Your task to perform on an android device: allow notifications from all sites in the chrome app Image 0: 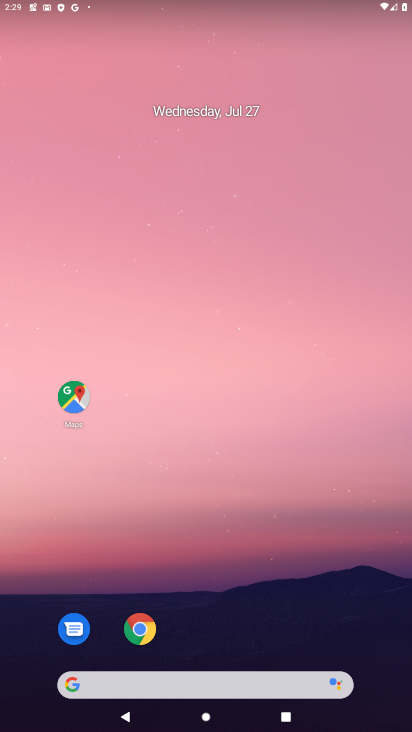
Step 0: click (134, 620)
Your task to perform on an android device: allow notifications from all sites in the chrome app Image 1: 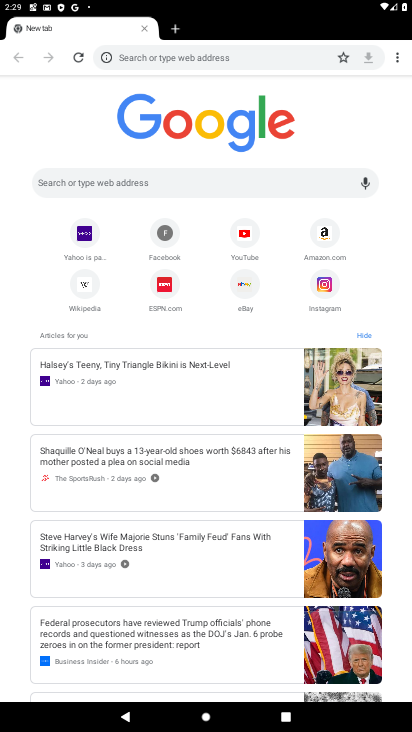
Step 1: click (410, 63)
Your task to perform on an android device: allow notifications from all sites in the chrome app Image 2: 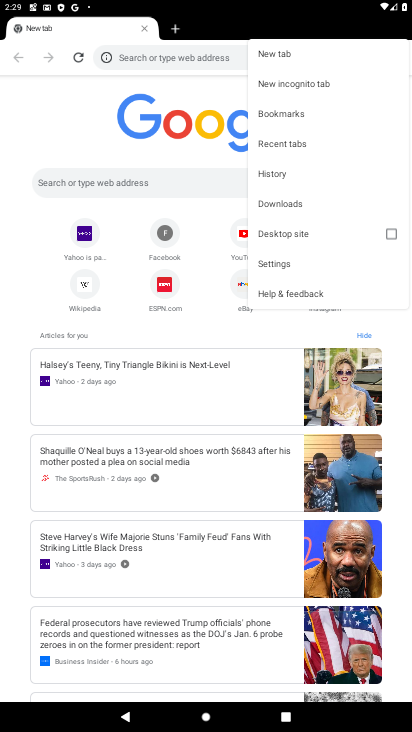
Step 2: click (275, 257)
Your task to perform on an android device: allow notifications from all sites in the chrome app Image 3: 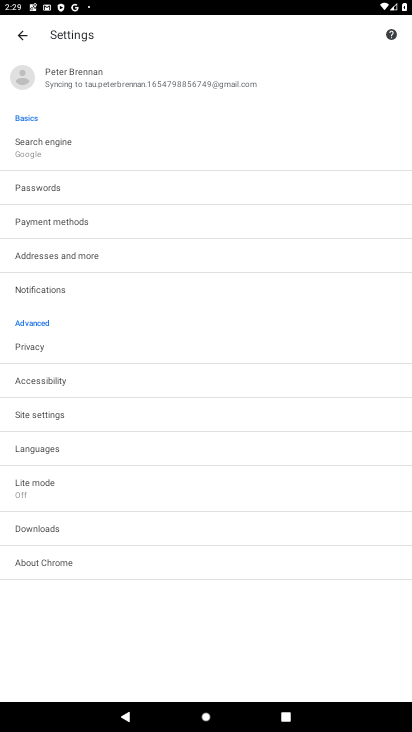
Step 3: click (181, 281)
Your task to perform on an android device: allow notifications from all sites in the chrome app Image 4: 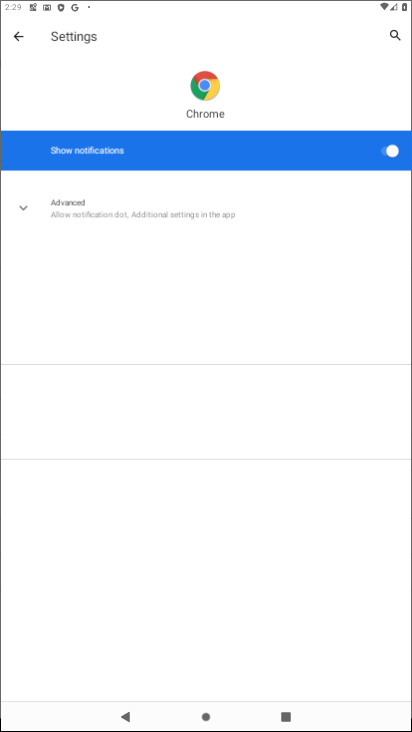
Step 4: task complete